Your task to perform on an android device: Open Wikipedia Image 0: 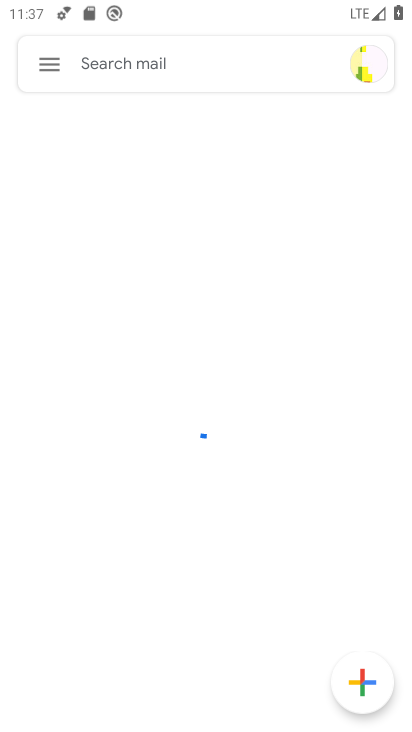
Step 0: press home button
Your task to perform on an android device: Open Wikipedia Image 1: 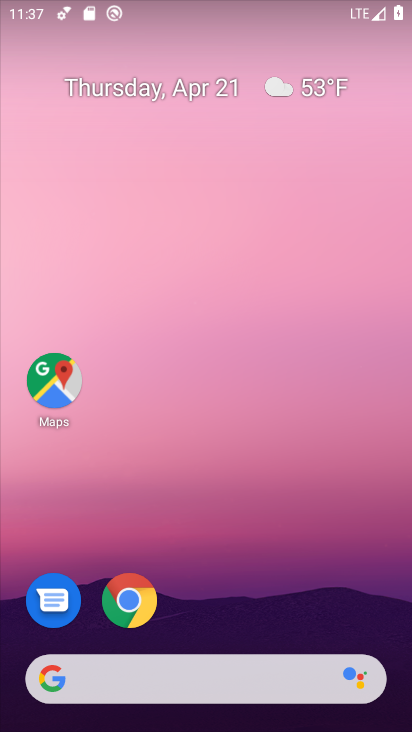
Step 1: click (130, 584)
Your task to perform on an android device: Open Wikipedia Image 2: 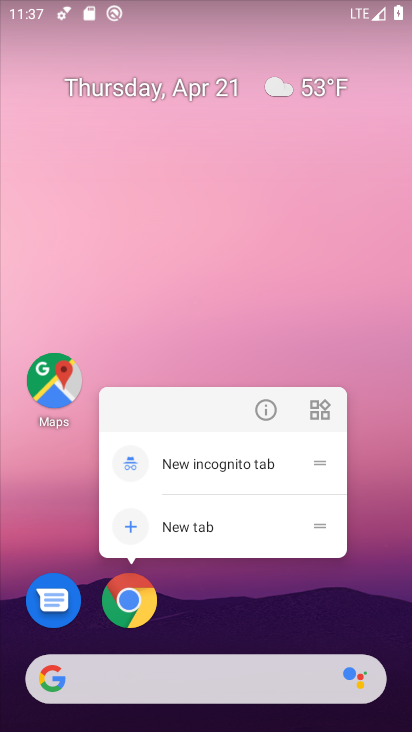
Step 2: click (128, 593)
Your task to perform on an android device: Open Wikipedia Image 3: 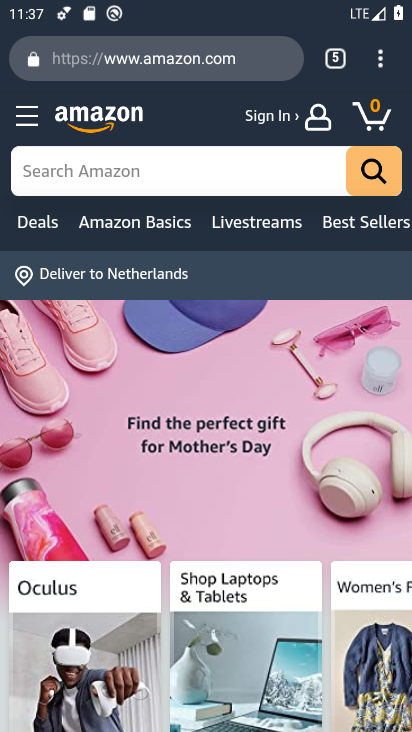
Step 3: click (334, 63)
Your task to perform on an android device: Open Wikipedia Image 4: 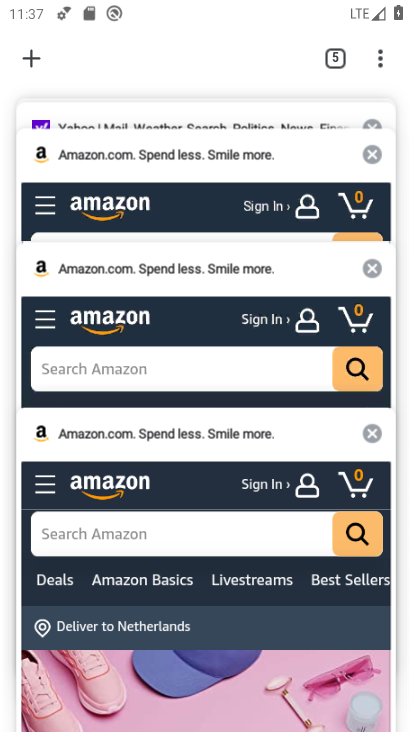
Step 4: click (29, 55)
Your task to perform on an android device: Open Wikipedia Image 5: 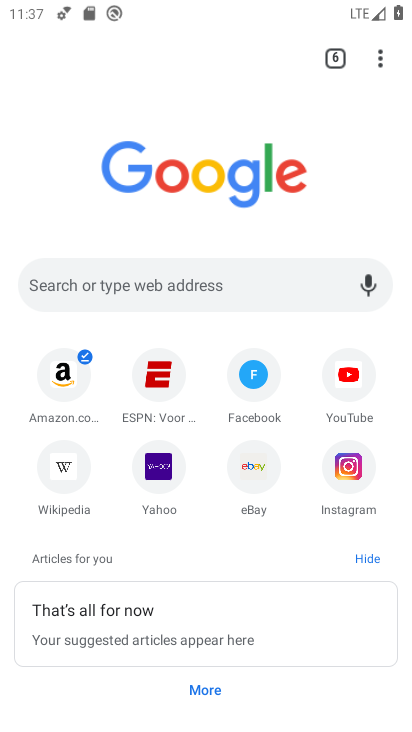
Step 5: click (55, 467)
Your task to perform on an android device: Open Wikipedia Image 6: 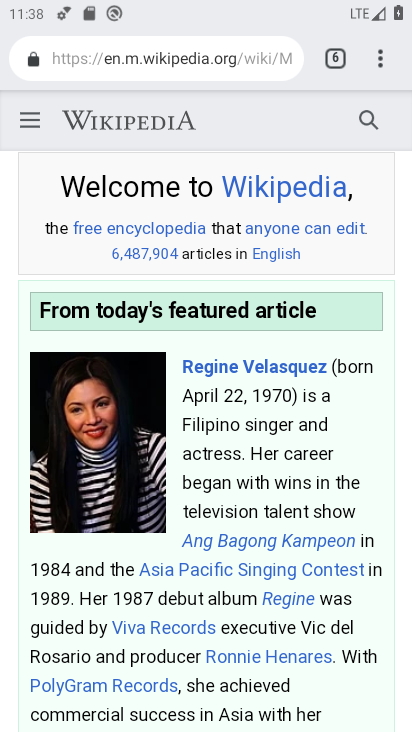
Step 6: task complete